Your task to perform on an android device: Search for pizza restaurants on Maps Image 0: 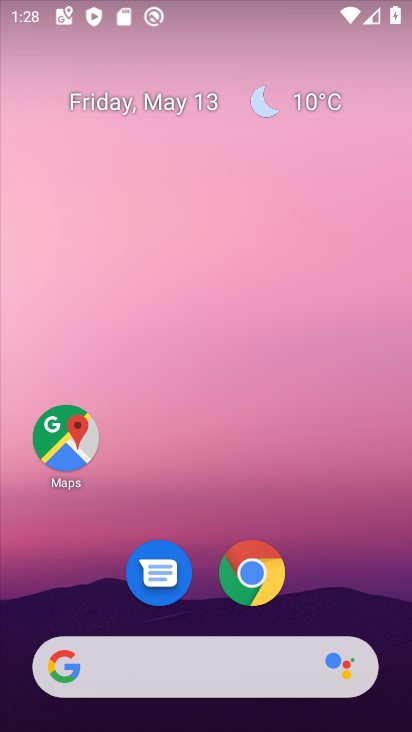
Step 0: drag from (297, 526) to (249, 24)
Your task to perform on an android device: Search for pizza restaurants on Maps Image 1: 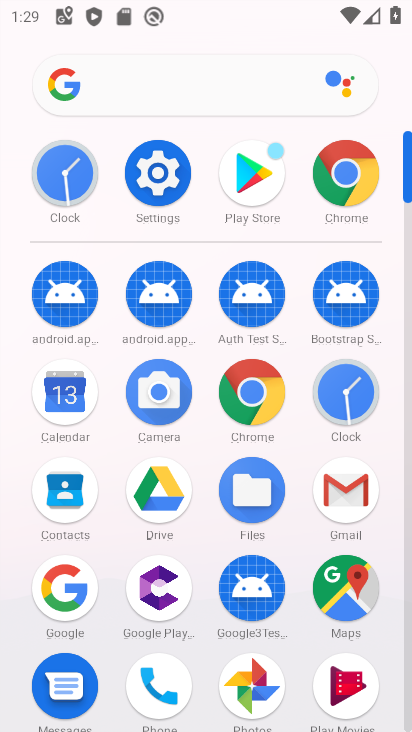
Step 1: click (330, 591)
Your task to perform on an android device: Search for pizza restaurants on Maps Image 2: 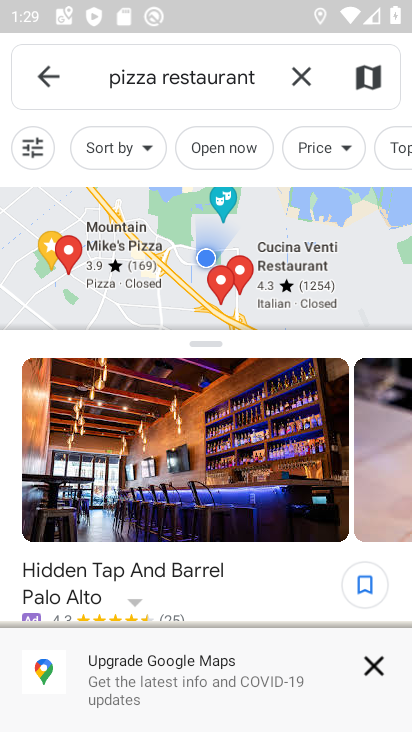
Step 2: task complete